Your task to perform on an android device: uninstall "Facebook Lite" Image 0: 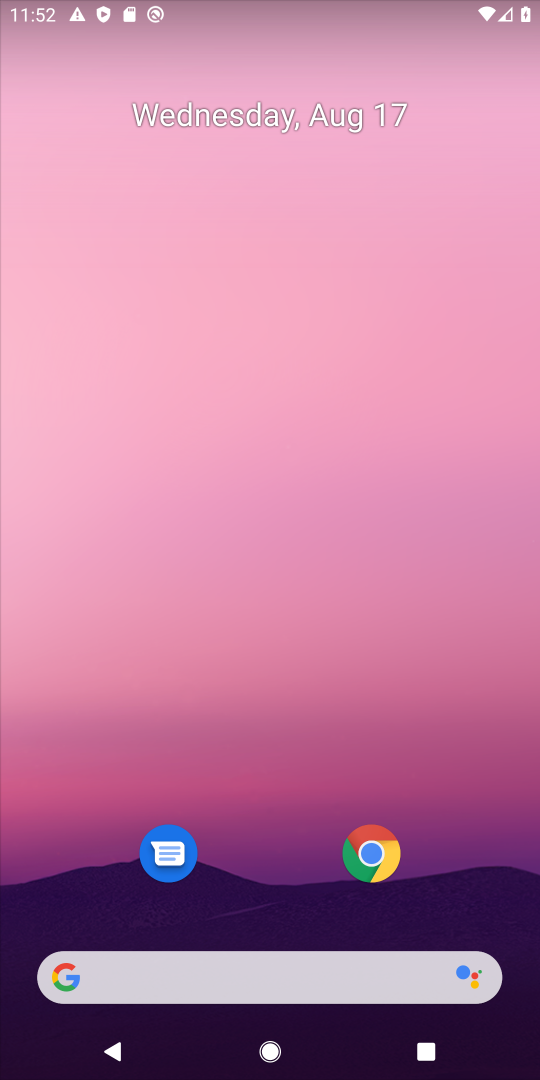
Step 0: drag from (251, 976) to (415, 132)
Your task to perform on an android device: uninstall "Facebook Lite" Image 1: 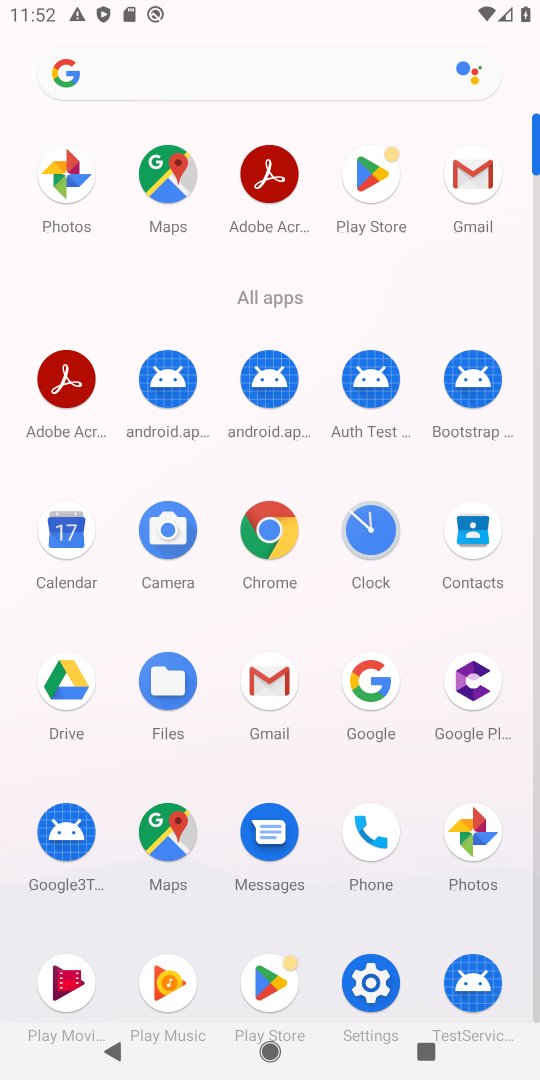
Step 1: task complete